Your task to perform on an android device: turn off notifications settings in the gmail app Image 0: 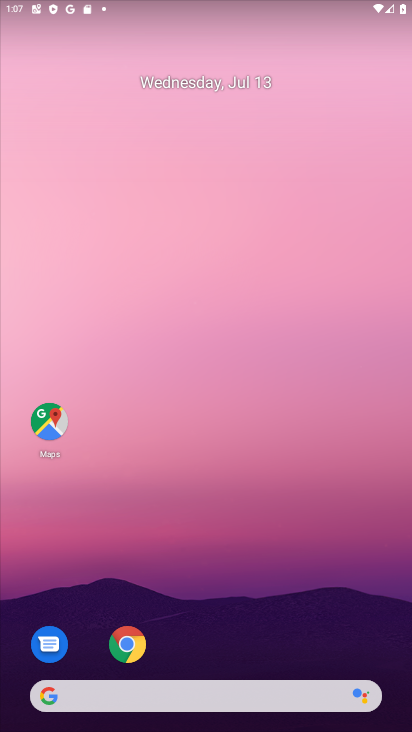
Step 0: drag from (296, 647) to (252, 94)
Your task to perform on an android device: turn off notifications settings in the gmail app Image 1: 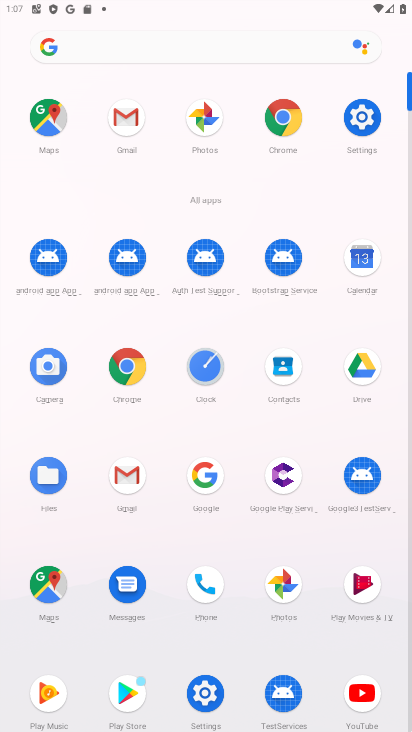
Step 1: click (120, 118)
Your task to perform on an android device: turn off notifications settings in the gmail app Image 2: 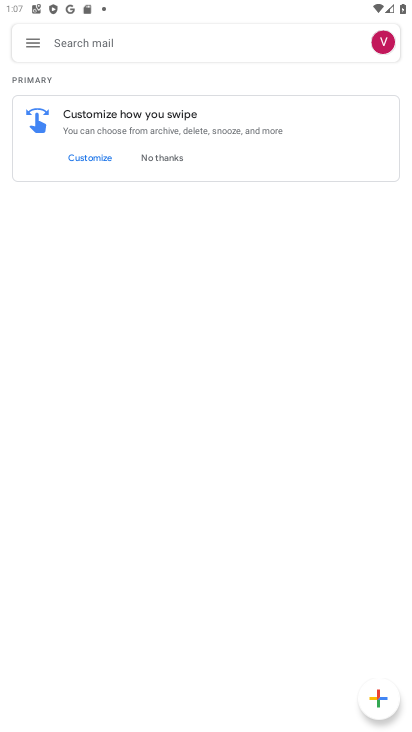
Step 2: click (32, 42)
Your task to perform on an android device: turn off notifications settings in the gmail app Image 3: 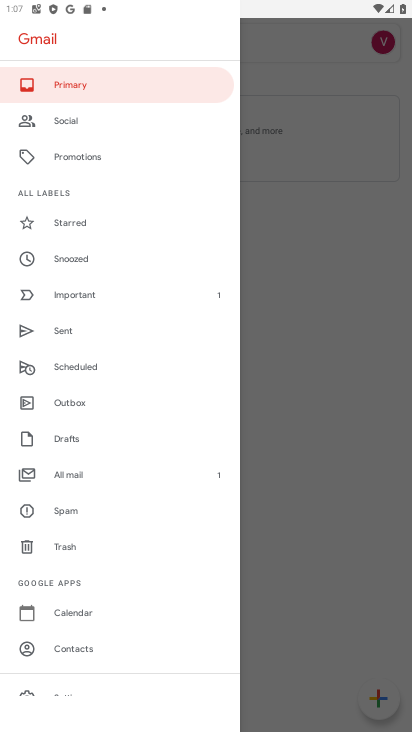
Step 3: drag from (113, 663) to (100, 261)
Your task to perform on an android device: turn off notifications settings in the gmail app Image 4: 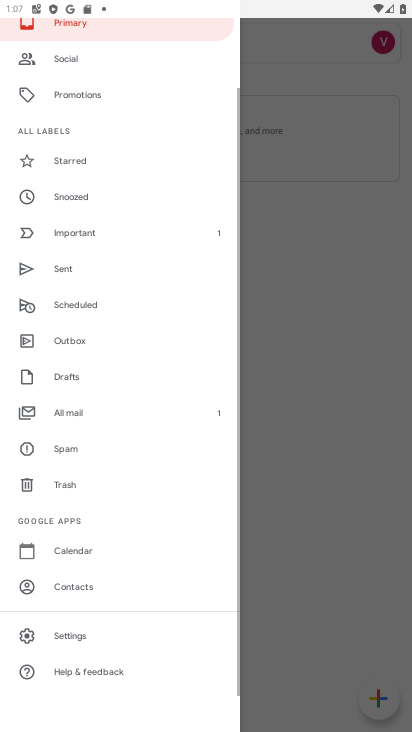
Step 4: click (140, 630)
Your task to perform on an android device: turn off notifications settings in the gmail app Image 5: 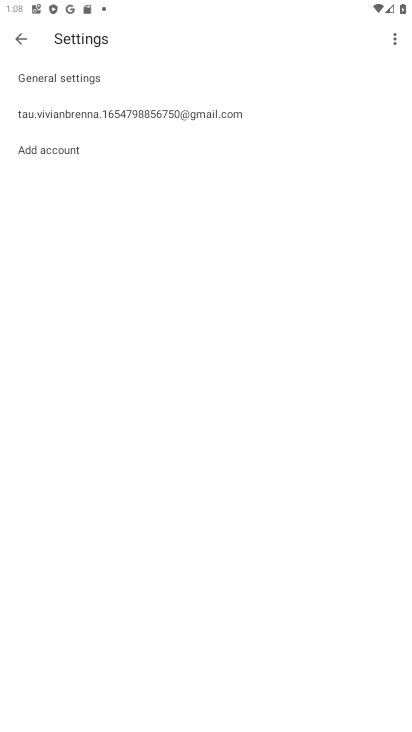
Step 5: click (165, 110)
Your task to perform on an android device: turn off notifications settings in the gmail app Image 6: 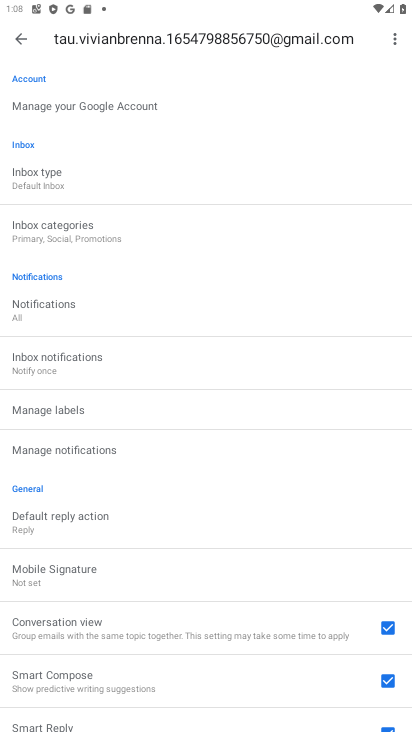
Step 6: click (132, 445)
Your task to perform on an android device: turn off notifications settings in the gmail app Image 7: 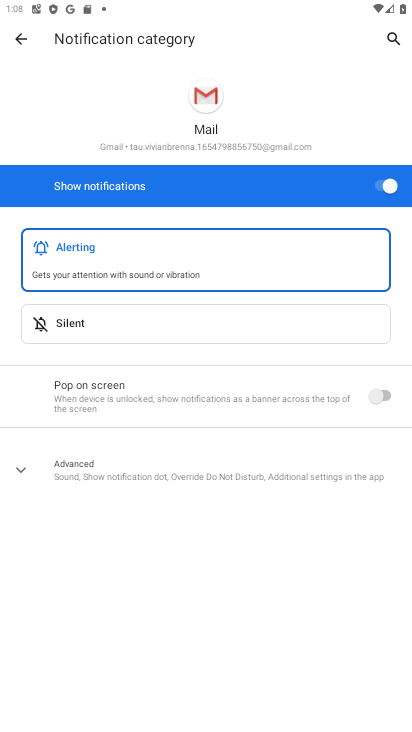
Step 7: task complete